Your task to perform on an android device: Show me popular videos on Youtube Image 0: 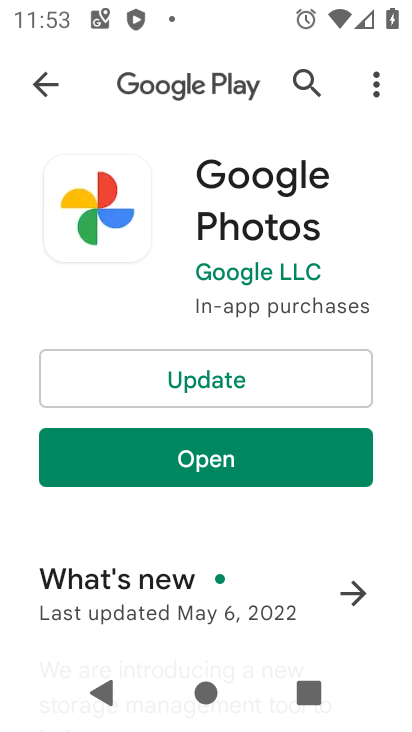
Step 0: press home button
Your task to perform on an android device: Show me popular videos on Youtube Image 1: 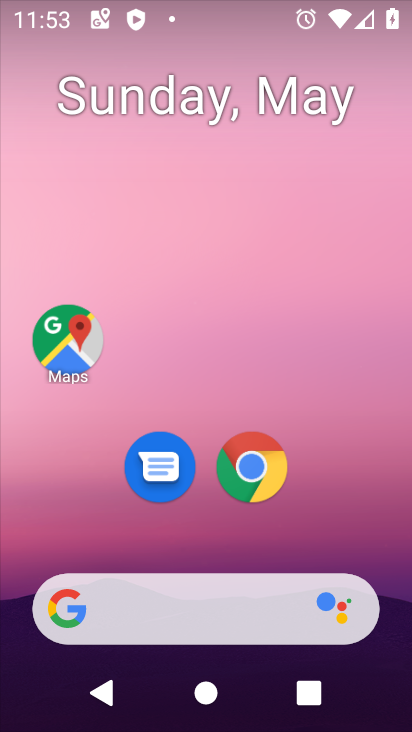
Step 1: drag from (376, 570) to (401, 14)
Your task to perform on an android device: Show me popular videos on Youtube Image 2: 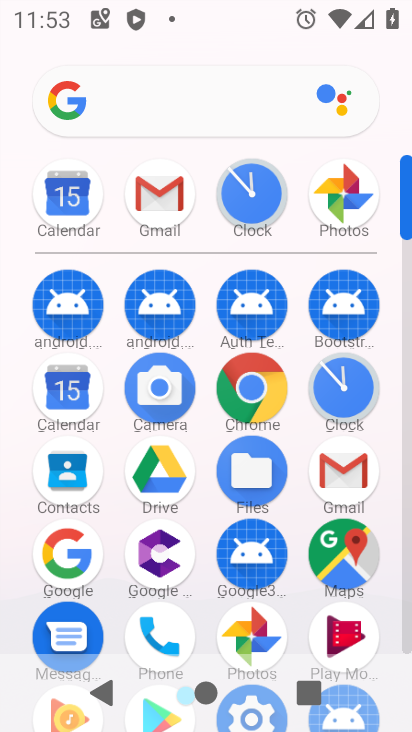
Step 2: drag from (408, 543) to (406, 472)
Your task to perform on an android device: Show me popular videos on Youtube Image 3: 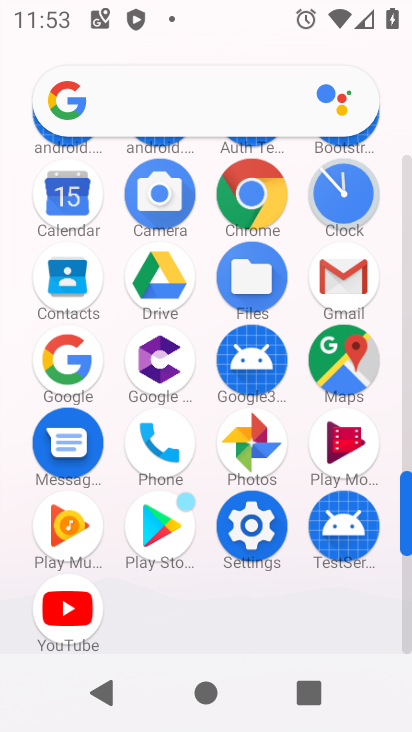
Step 3: click (71, 620)
Your task to perform on an android device: Show me popular videos on Youtube Image 4: 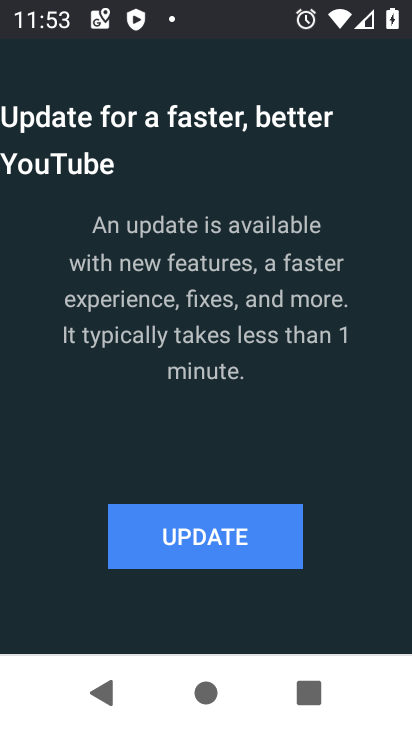
Step 4: click (209, 532)
Your task to perform on an android device: Show me popular videos on Youtube Image 5: 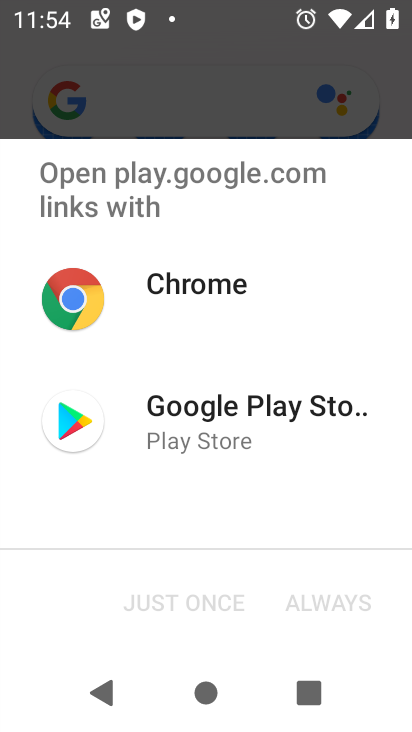
Step 5: click (164, 437)
Your task to perform on an android device: Show me popular videos on Youtube Image 6: 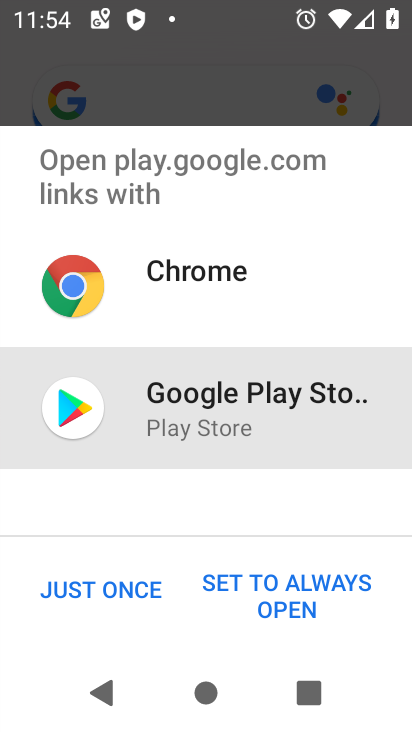
Step 6: click (149, 590)
Your task to perform on an android device: Show me popular videos on Youtube Image 7: 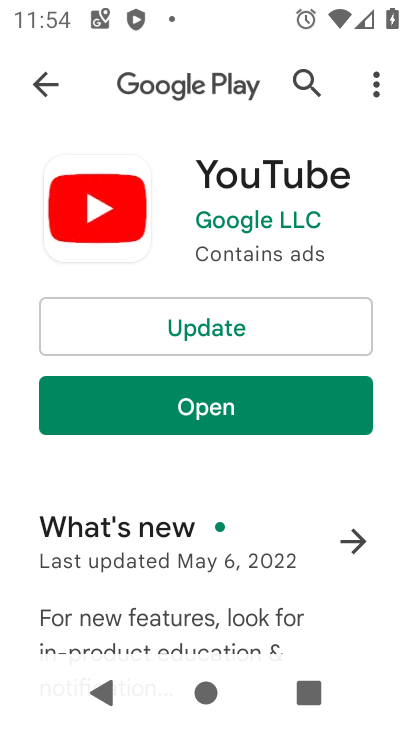
Step 7: click (191, 338)
Your task to perform on an android device: Show me popular videos on Youtube Image 8: 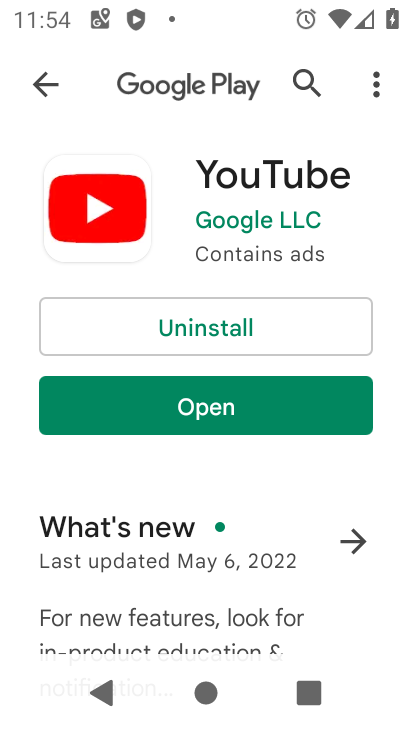
Step 8: click (198, 412)
Your task to perform on an android device: Show me popular videos on Youtube Image 9: 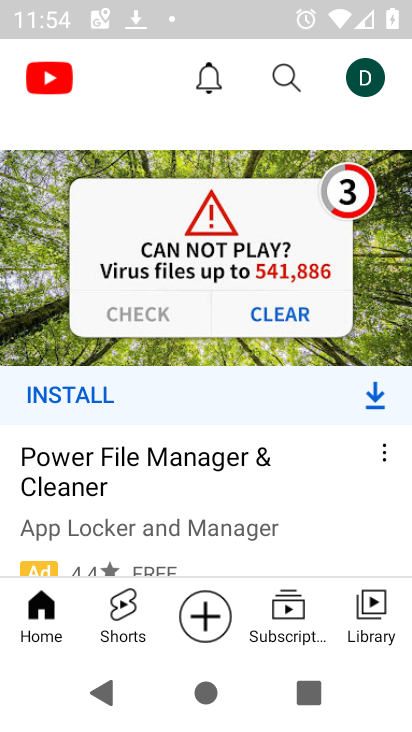
Step 9: drag from (194, 489) to (219, 191)
Your task to perform on an android device: Show me popular videos on Youtube Image 10: 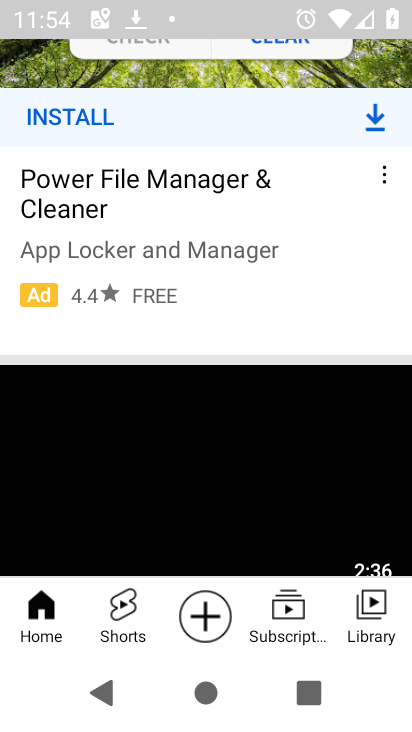
Step 10: click (47, 622)
Your task to perform on an android device: Show me popular videos on Youtube Image 11: 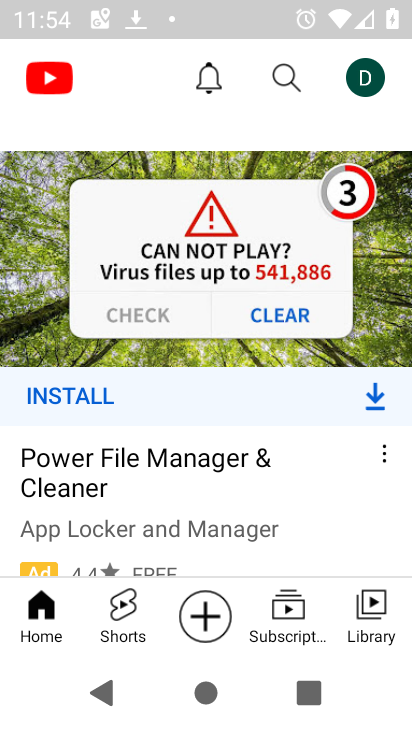
Step 11: task complete